Your task to perform on an android device: Open calendar and show me the third week of next month Image 0: 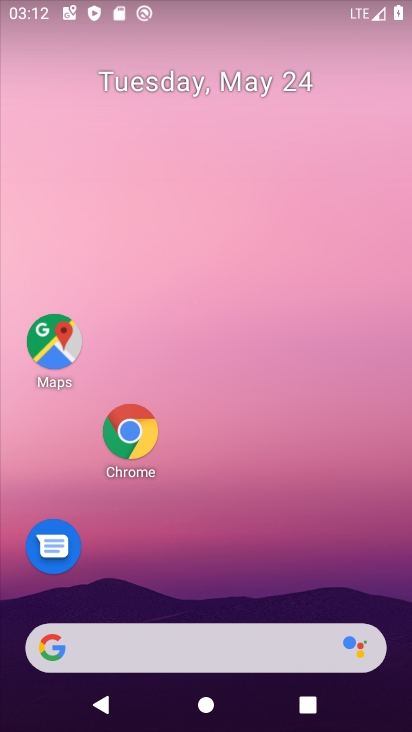
Step 0: drag from (248, 537) to (302, 271)
Your task to perform on an android device: Open calendar and show me the third week of next month Image 1: 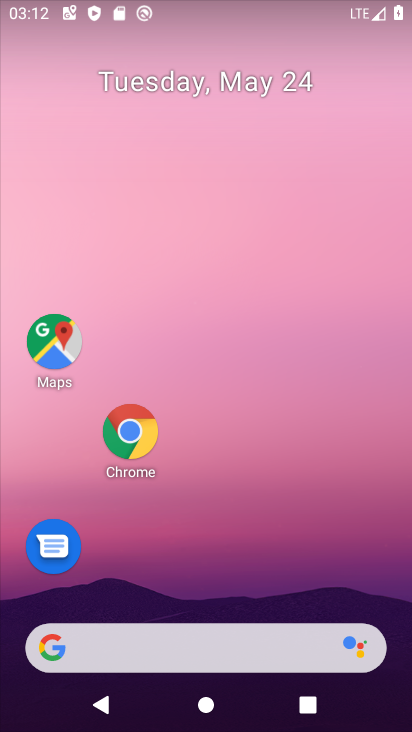
Step 1: drag from (197, 585) to (263, 300)
Your task to perform on an android device: Open calendar and show me the third week of next month Image 2: 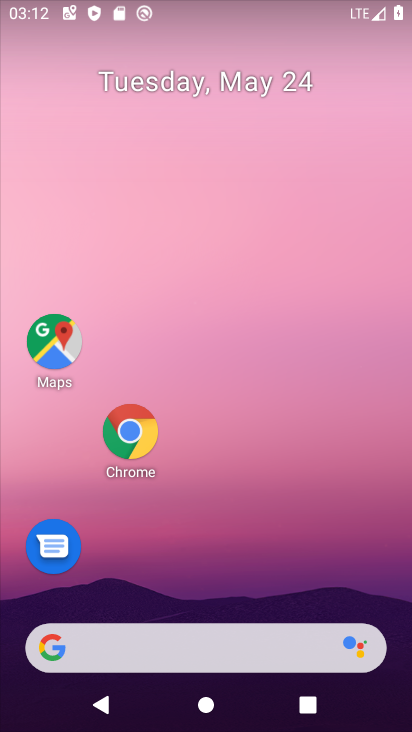
Step 2: drag from (186, 597) to (315, 92)
Your task to perform on an android device: Open calendar and show me the third week of next month Image 3: 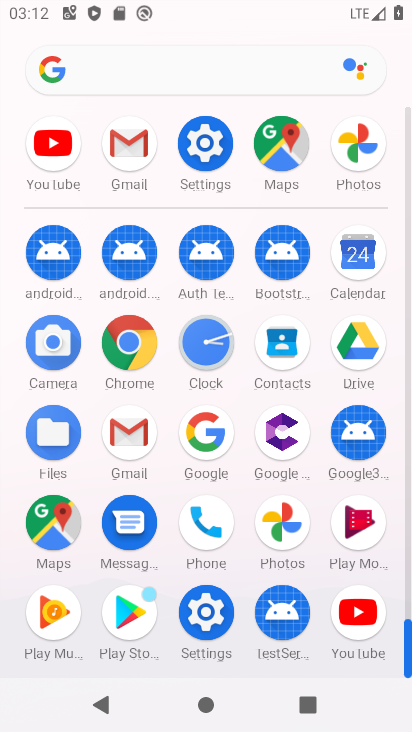
Step 3: click (364, 245)
Your task to perform on an android device: Open calendar and show me the third week of next month Image 4: 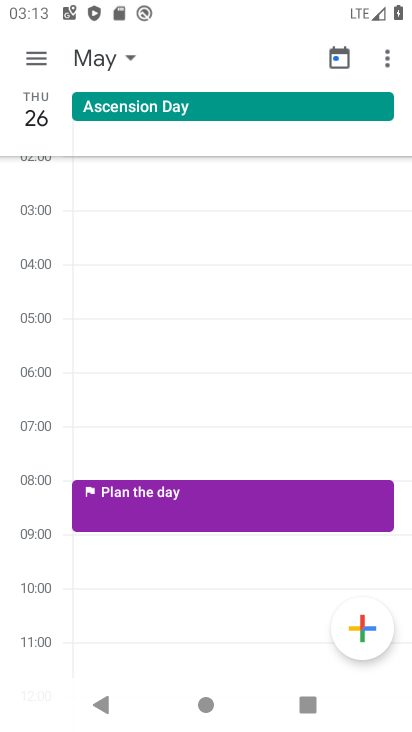
Step 4: click (127, 46)
Your task to perform on an android device: Open calendar and show me the third week of next month Image 5: 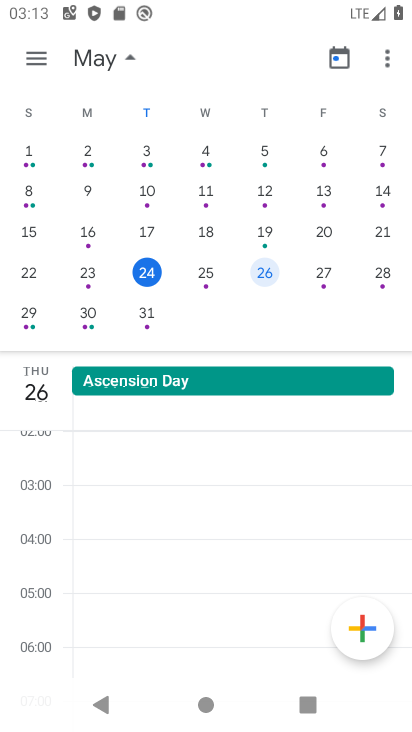
Step 5: drag from (376, 246) to (72, 238)
Your task to perform on an android device: Open calendar and show me the third week of next month Image 6: 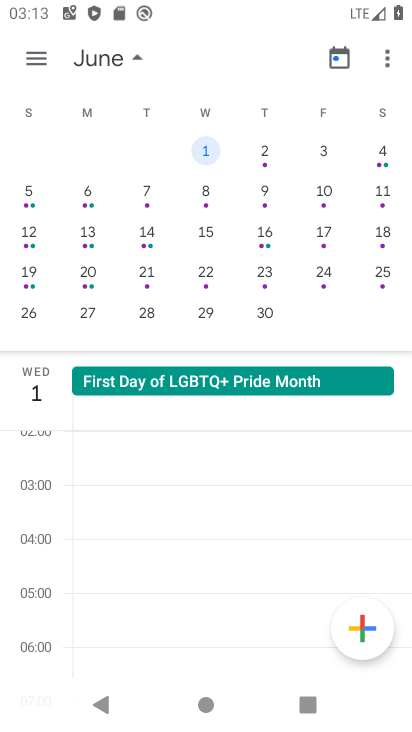
Step 6: click (268, 226)
Your task to perform on an android device: Open calendar and show me the third week of next month Image 7: 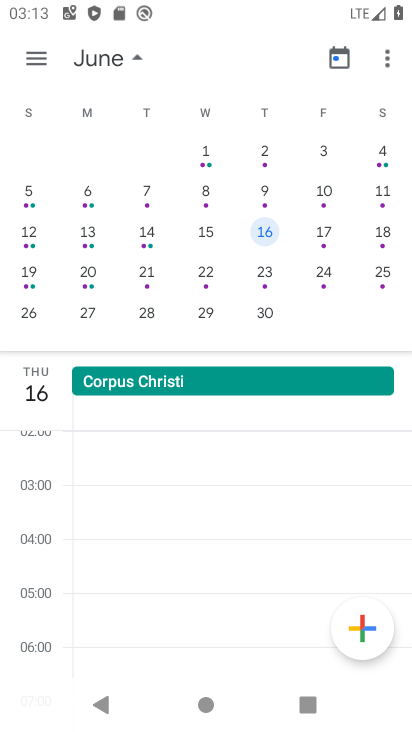
Step 7: task complete